Your task to perform on an android device: What's the weather going to be this weekend? Image 0: 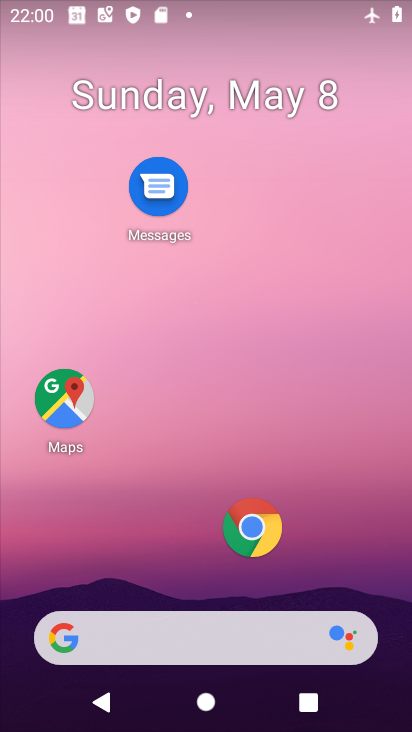
Step 0: drag from (175, 533) to (196, 13)
Your task to perform on an android device: What's the weather going to be this weekend? Image 1: 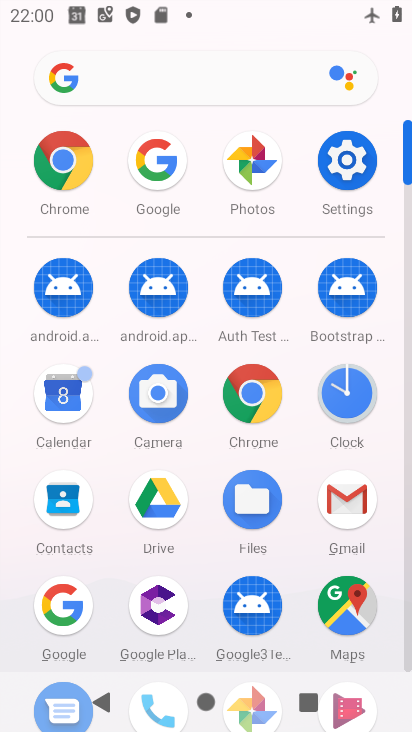
Step 1: click (156, 206)
Your task to perform on an android device: What's the weather going to be this weekend? Image 2: 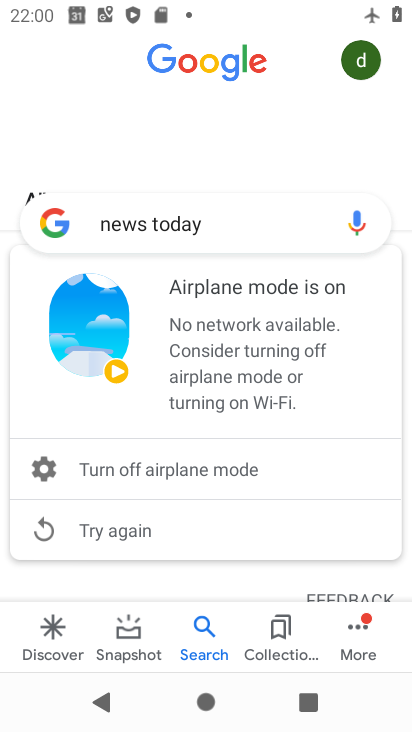
Step 2: click (236, 237)
Your task to perform on an android device: What's the weather going to be this weekend? Image 3: 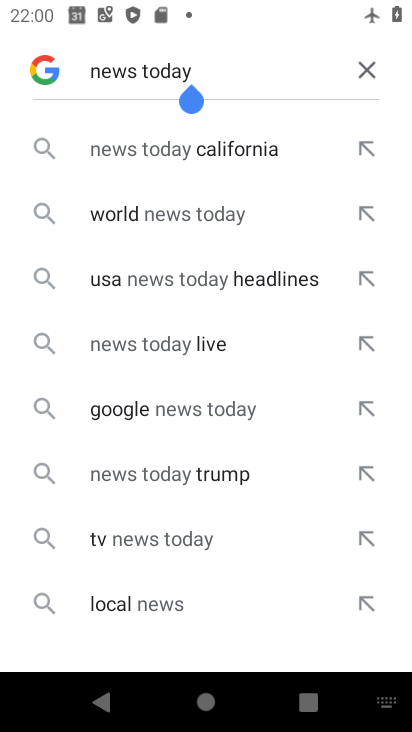
Step 3: press back button
Your task to perform on an android device: What's the weather going to be this weekend? Image 4: 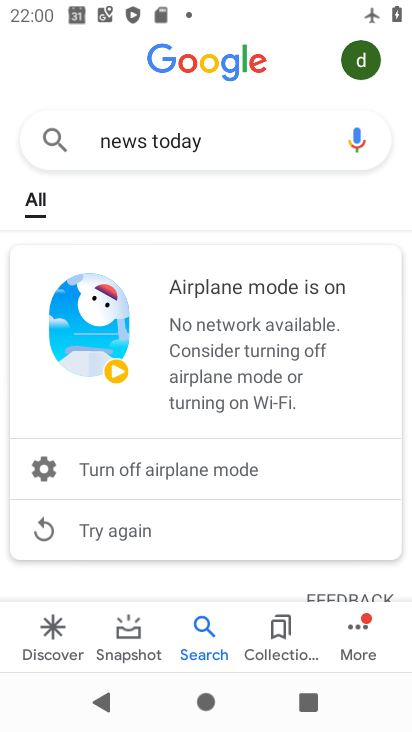
Step 4: click (245, 136)
Your task to perform on an android device: What's the weather going to be this weekend? Image 5: 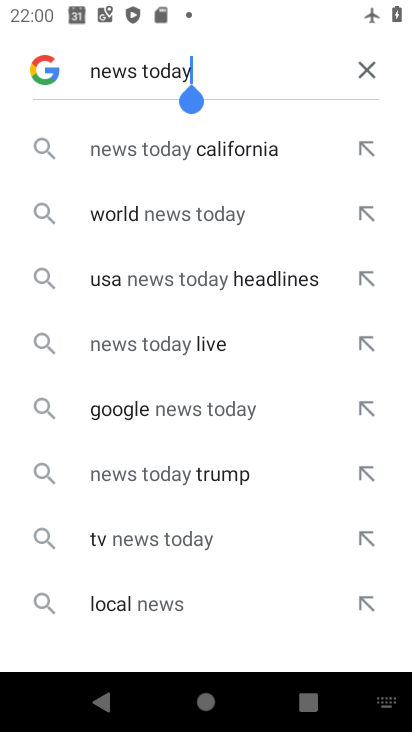
Step 5: click (360, 62)
Your task to perform on an android device: What's the weather going to be this weekend? Image 6: 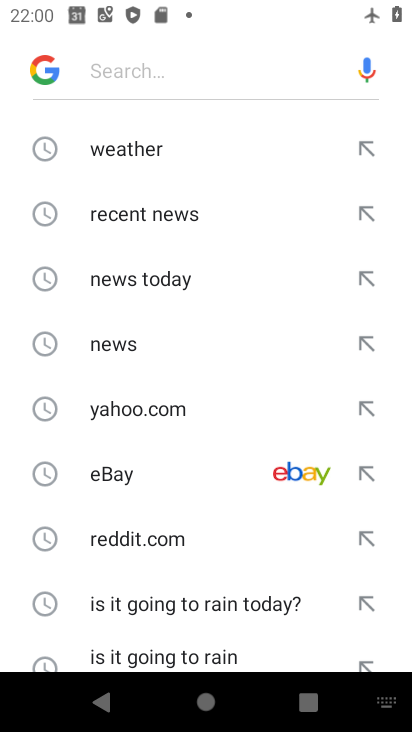
Step 6: type "whats weather going to be this weekend"
Your task to perform on an android device: What's the weather going to be this weekend? Image 7: 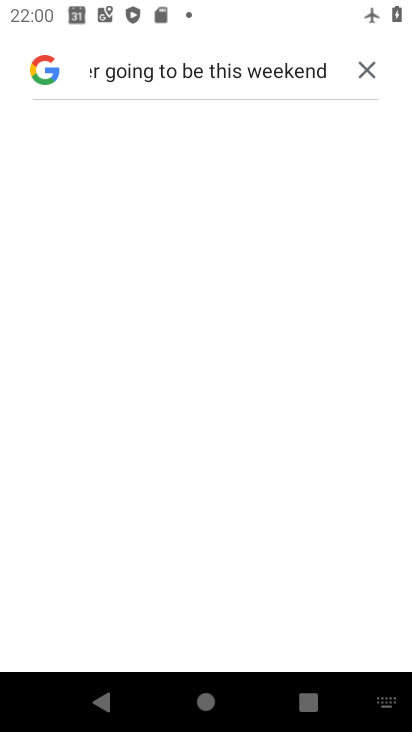
Step 7: click (356, 72)
Your task to perform on an android device: What's the weather going to be this weekend? Image 8: 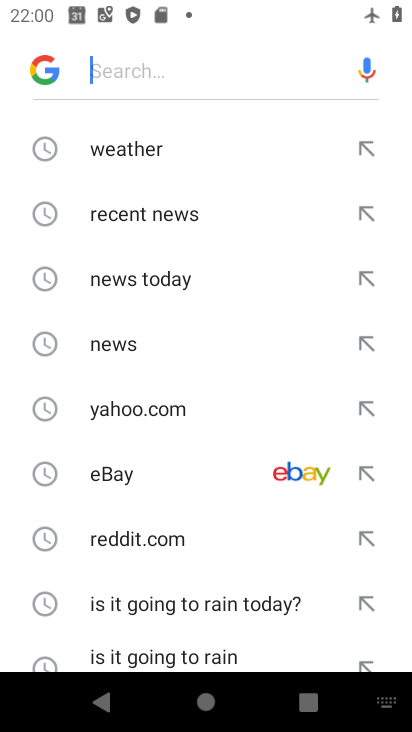
Step 8: task complete